Your task to perform on an android device: turn off smart reply in the gmail app Image 0: 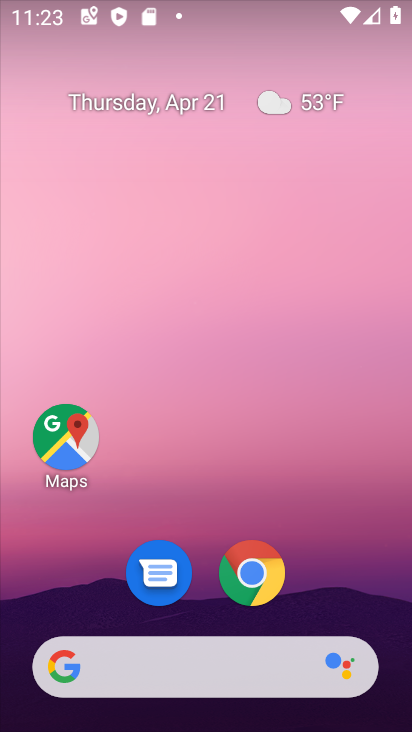
Step 0: drag from (340, 535) to (319, 71)
Your task to perform on an android device: turn off smart reply in the gmail app Image 1: 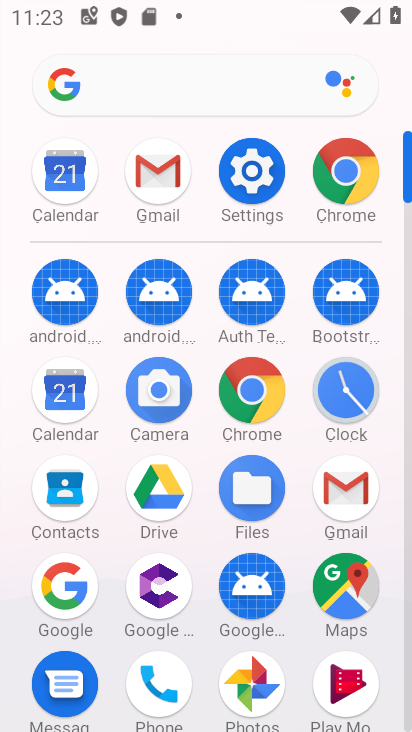
Step 1: click (344, 481)
Your task to perform on an android device: turn off smart reply in the gmail app Image 2: 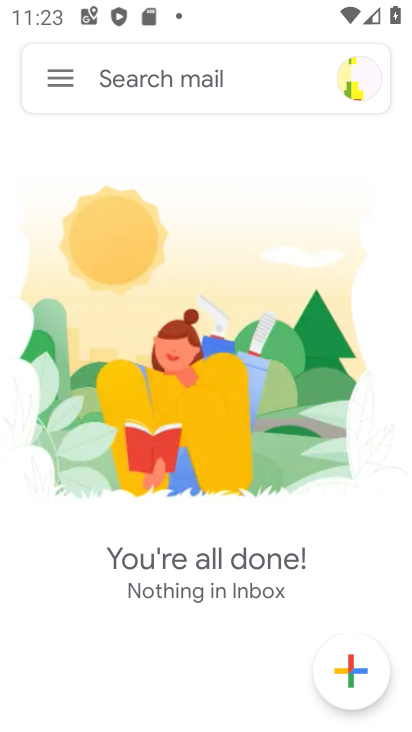
Step 2: click (46, 77)
Your task to perform on an android device: turn off smart reply in the gmail app Image 3: 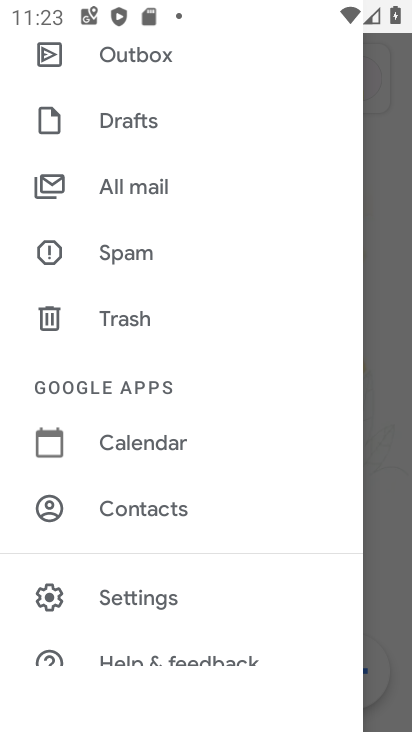
Step 3: click (162, 595)
Your task to perform on an android device: turn off smart reply in the gmail app Image 4: 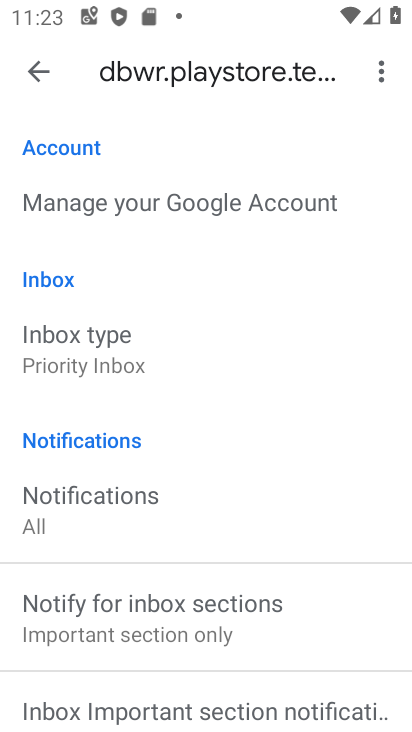
Step 4: drag from (217, 516) to (214, 63)
Your task to perform on an android device: turn off smart reply in the gmail app Image 5: 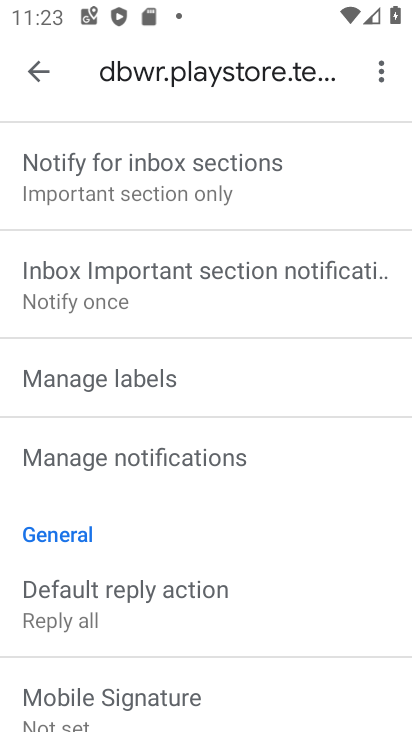
Step 5: drag from (299, 677) to (305, 201)
Your task to perform on an android device: turn off smart reply in the gmail app Image 6: 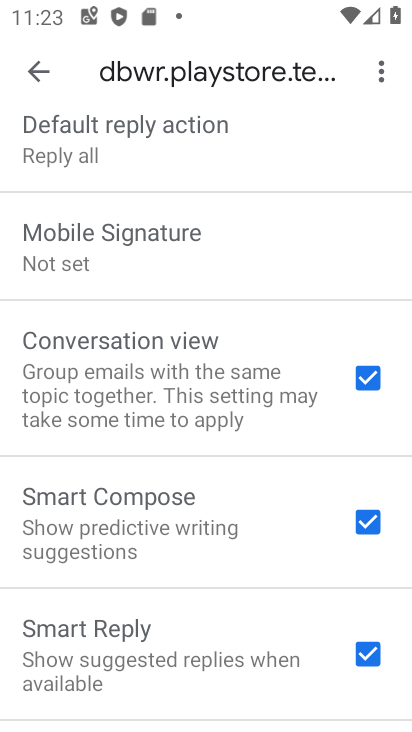
Step 6: click (367, 650)
Your task to perform on an android device: turn off smart reply in the gmail app Image 7: 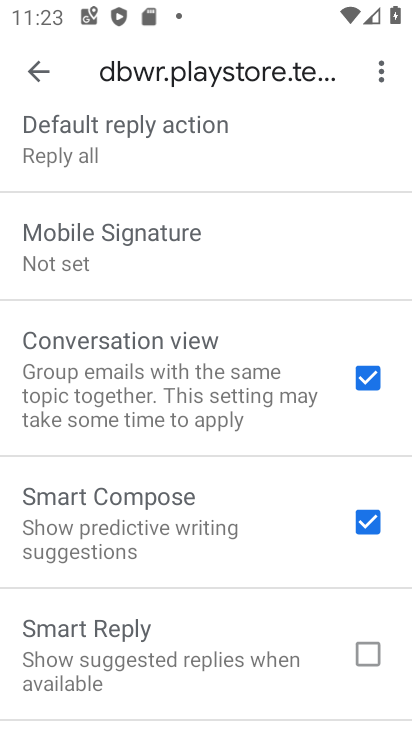
Step 7: task complete